Your task to perform on an android device: What is the recent news? Image 0: 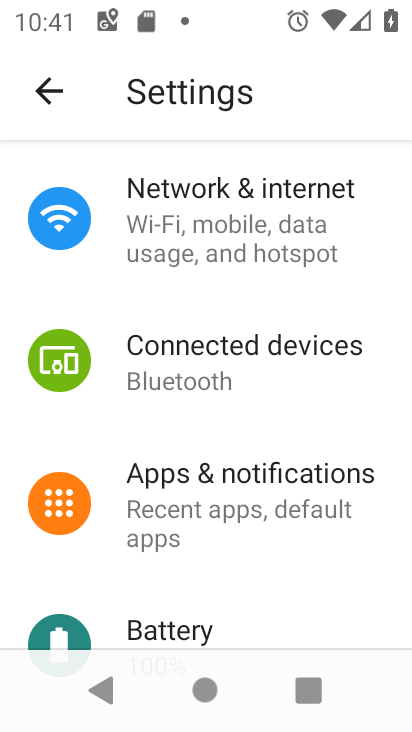
Step 0: press home button
Your task to perform on an android device: What is the recent news? Image 1: 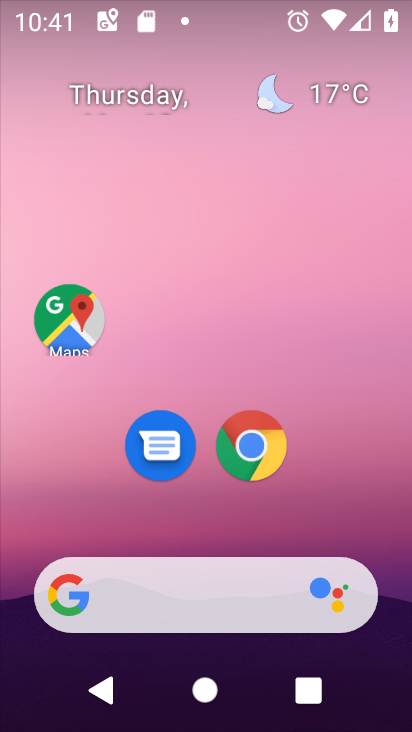
Step 1: drag from (249, 533) to (193, 140)
Your task to perform on an android device: What is the recent news? Image 2: 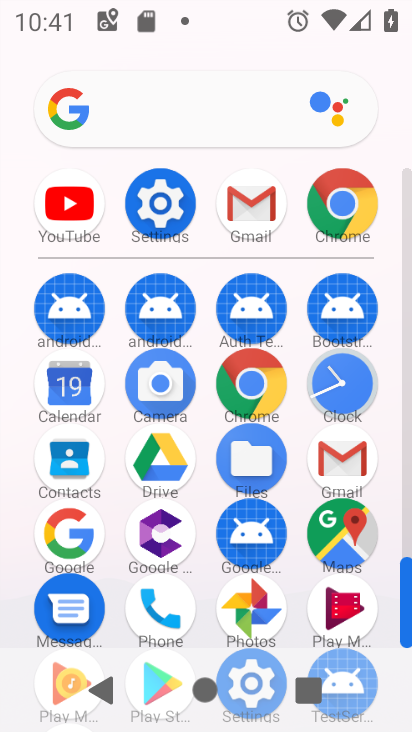
Step 2: click (66, 531)
Your task to perform on an android device: What is the recent news? Image 3: 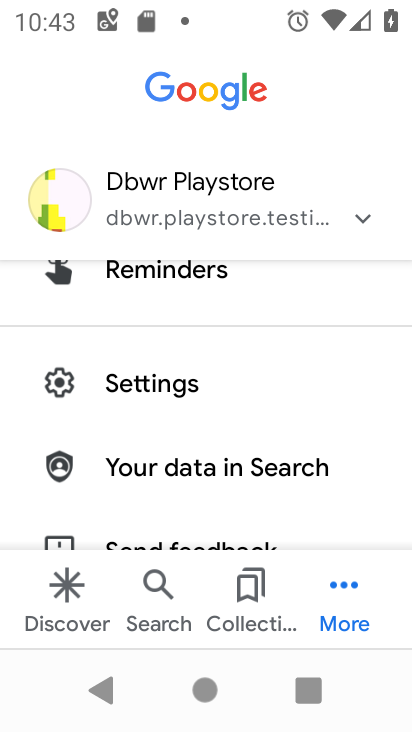
Step 3: click (65, 569)
Your task to perform on an android device: What is the recent news? Image 4: 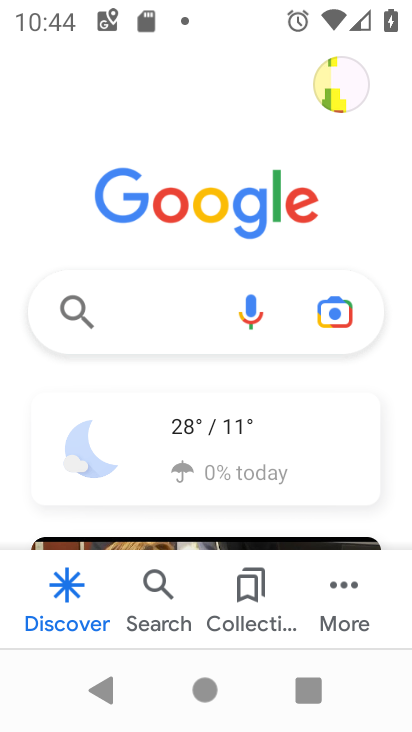
Step 4: task complete